Your task to perform on an android device: Show me popular videos on Youtube Image 0: 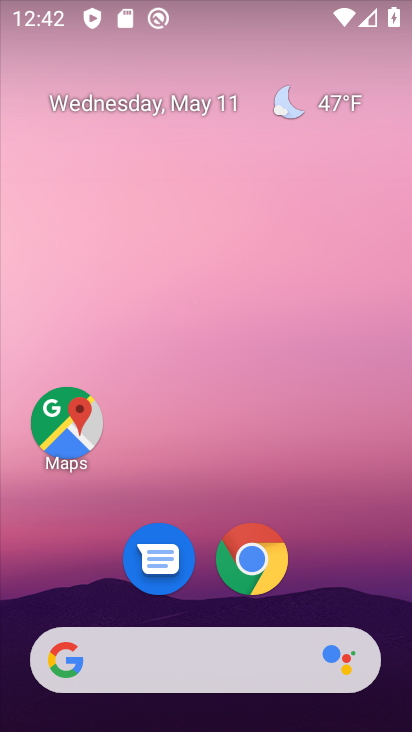
Step 0: drag from (206, 595) to (245, 6)
Your task to perform on an android device: Show me popular videos on Youtube Image 1: 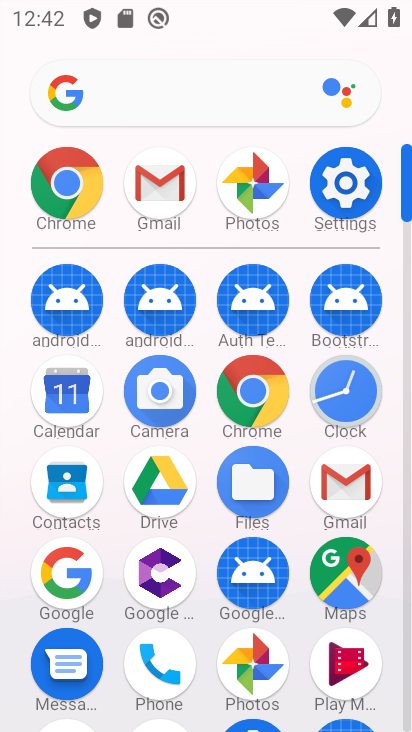
Step 1: drag from (272, 580) to (307, 83)
Your task to perform on an android device: Show me popular videos on Youtube Image 2: 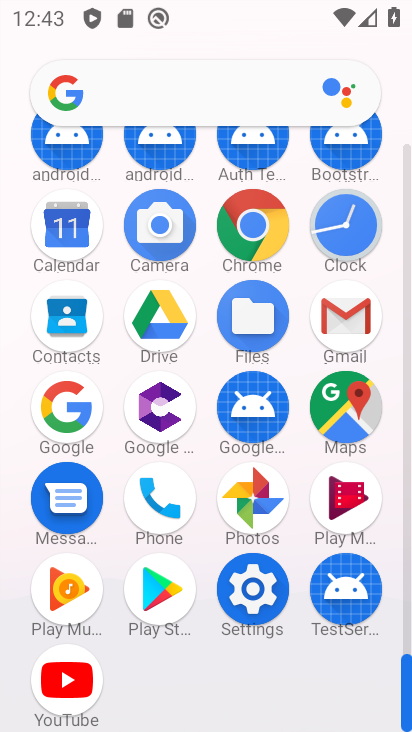
Step 2: click (75, 692)
Your task to perform on an android device: Show me popular videos on Youtube Image 3: 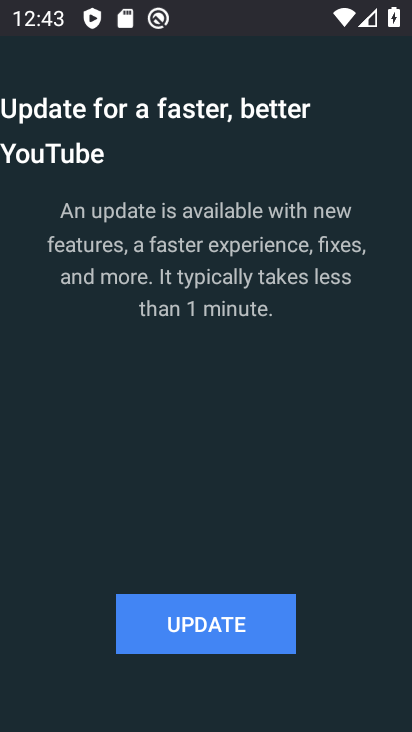
Step 3: click (189, 615)
Your task to perform on an android device: Show me popular videos on Youtube Image 4: 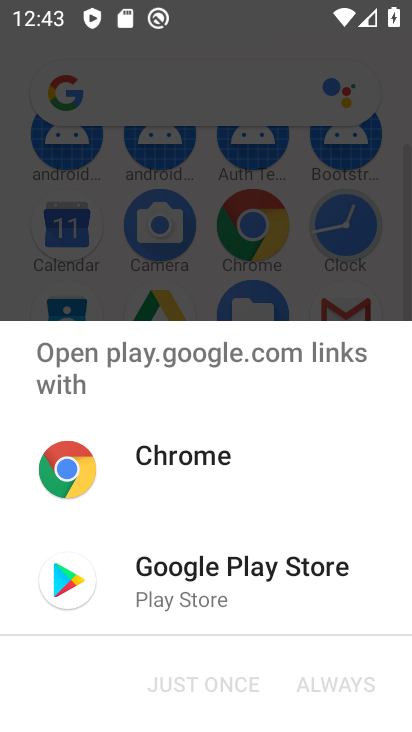
Step 4: click (161, 580)
Your task to perform on an android device: Show me popular videos on Youtube Image 5: 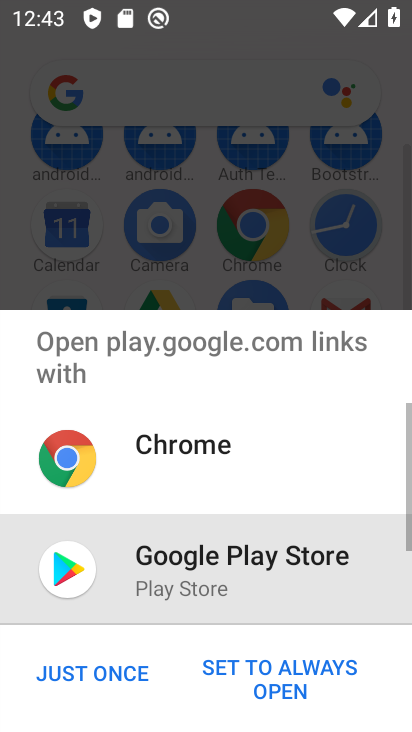
Step 5: click (127, 685)
Your task to perform on an android device: Show me popular videos on Youtube Image 6: 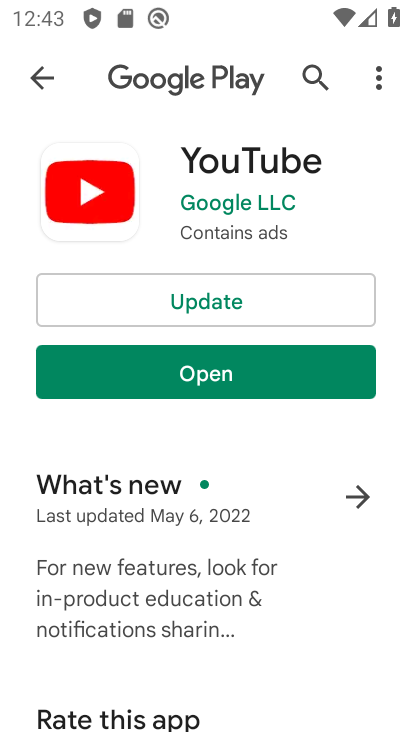
Step 6: click (214, 296)
Your task to perform on an android device: Show me popular videos on Youtube Image 7: 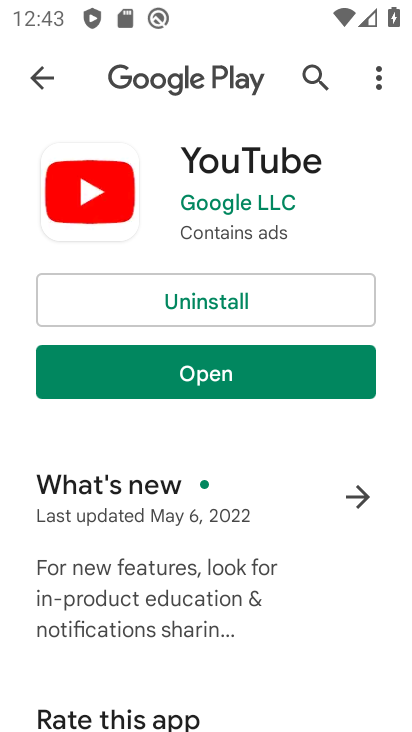
Step 7: click (251, 374)
Your task to perform on an android device: Show me popular videos on Youtube Image 8: 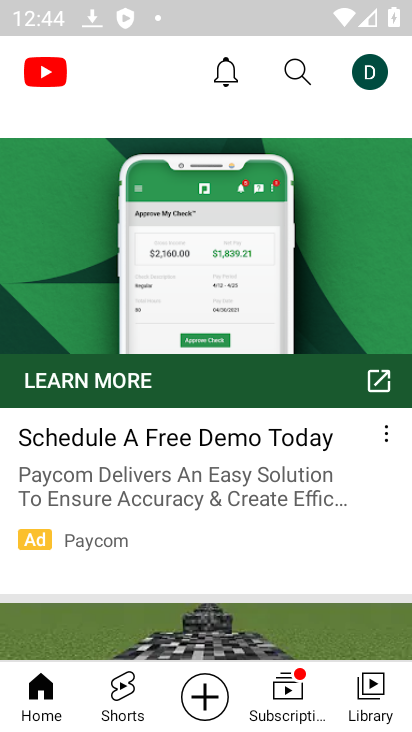
Step 8: drag from (252, 258) to (218, 661)
Your task to perform on an android device: Show me popular videos on Youtube Image 9: 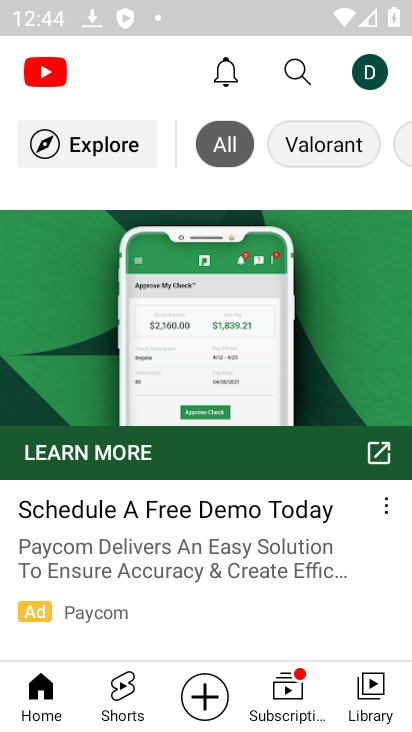
Step 9: click (82, 141)
Your task to perform on an android device: Show me popular videos on Youtube Image 10: 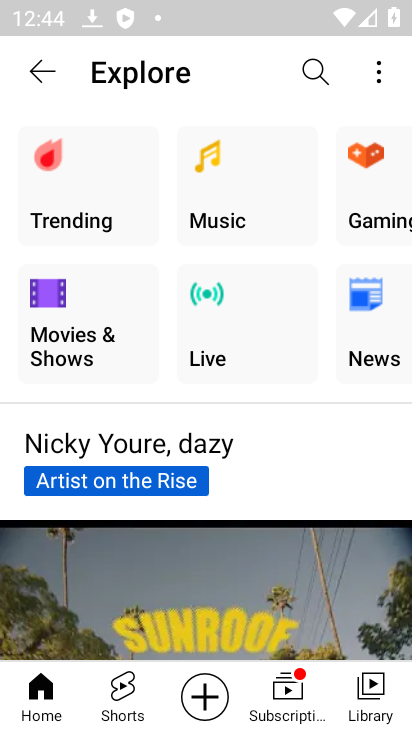
Step 10: drag from (58, 203) to (90, 176)
Your task to perform on an android device: Show me popular videos on Youtube Image 11: 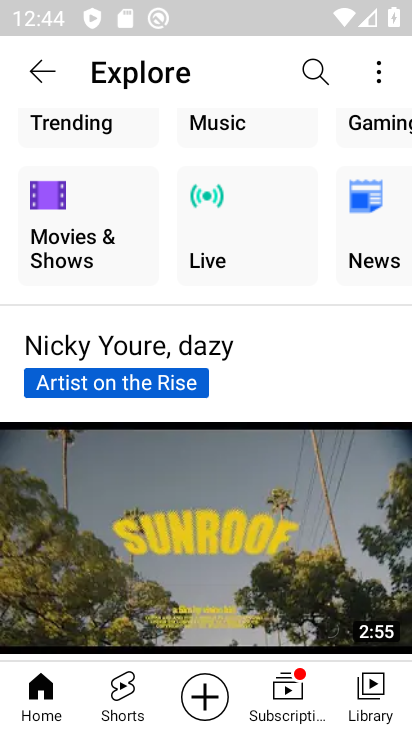
Step 11: drag from (30, 253) to (19, 421)
Your task to perform on an android device: Show me popular videos on Youtube Image 12: 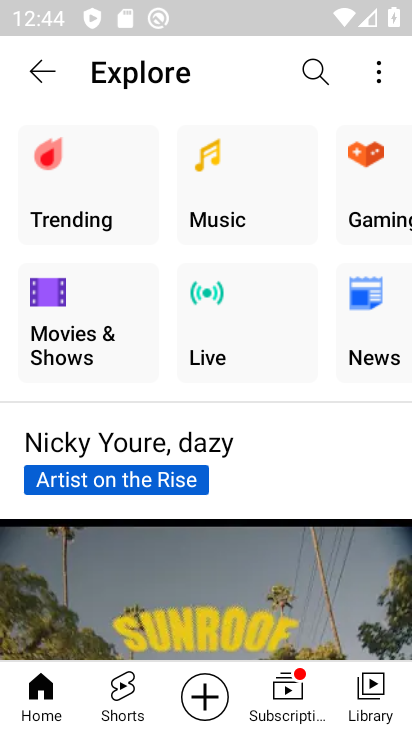
Step 12: click (63, 154)
Your task to perform on an android device: Show me popular videos on Youtube Image 13: 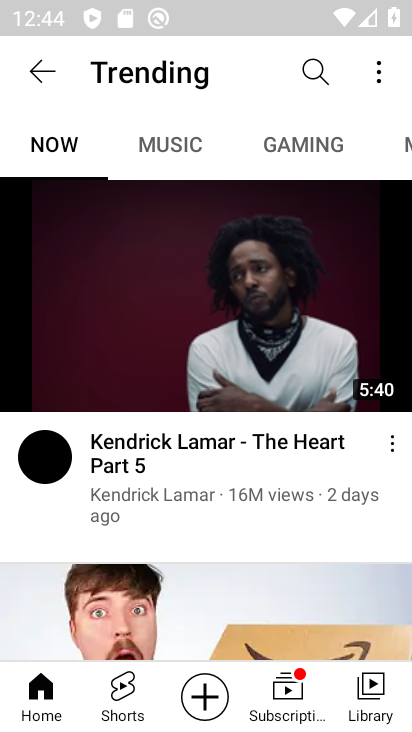
Step 13: task complete